Your task to perform on an android device: Set the phone to "Do not disturb". Image 0: 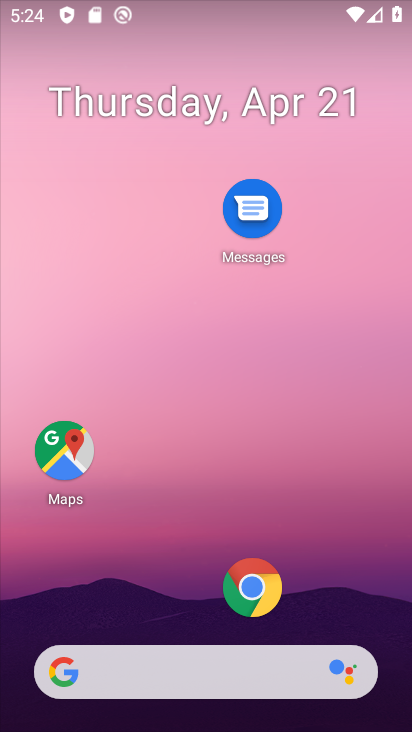
Step 0: drag from (175, 9) to (184, 580)
Your task to perform on an android device: Set the phone to "Do not disturb". Image 1: 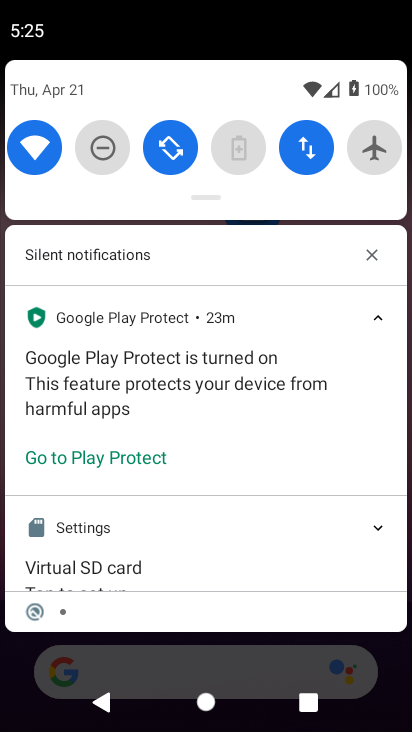
Step 1: click (93, 147)
Your task to perform on an android device: Set the phone to "Do not disturb". Image 2: 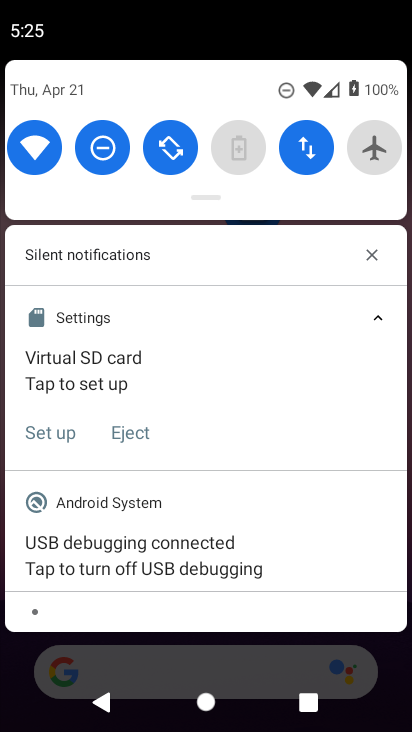
Step 2: task complete